Your task to perform on an android device: toggle notifications settings in the gmail app Image 0: 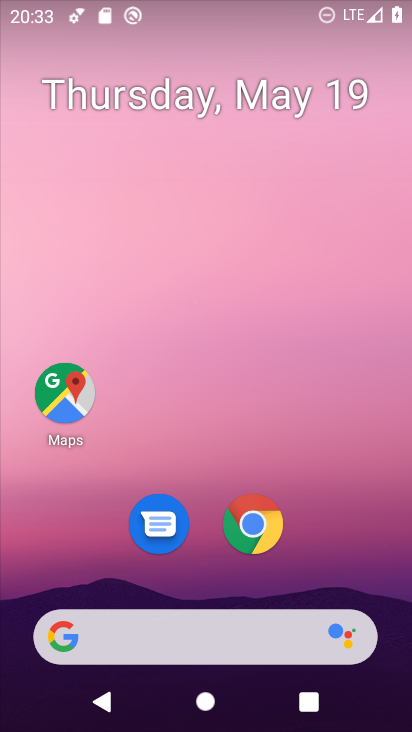
Step 0: drag from (332, 518) to (363, 75)
Your task to perform on an android device: toggle notifications settings in the gmail app Image 1: 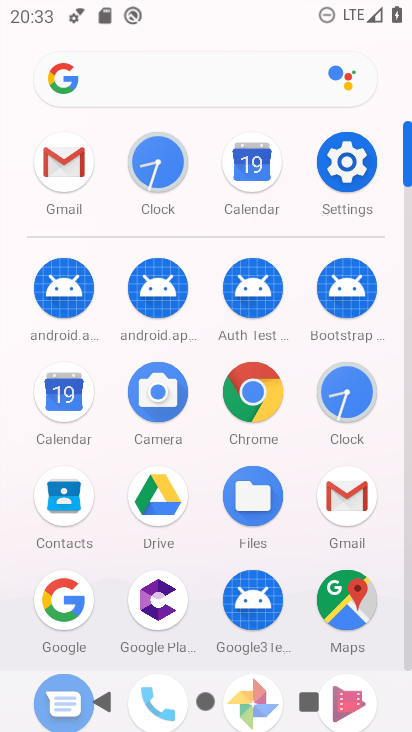
Step 1: click (338, 488)
Your task to perform on an android device: toggle notifications settings in the gmail app Image 2: 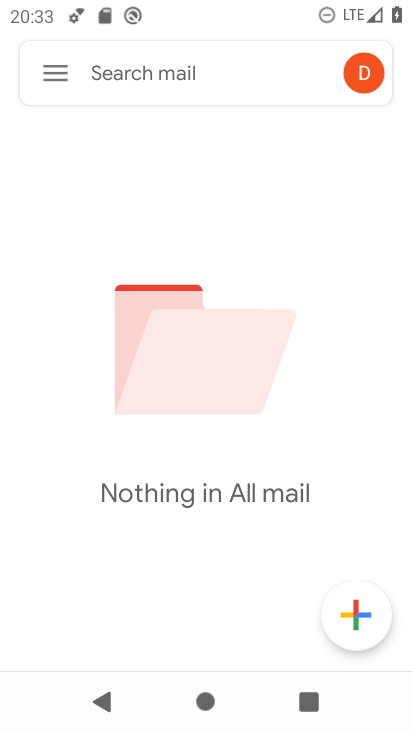
Step 2: click (53, 70)
Your task to perform on an android device: toggle notifications settings in the gmail app Image 3: 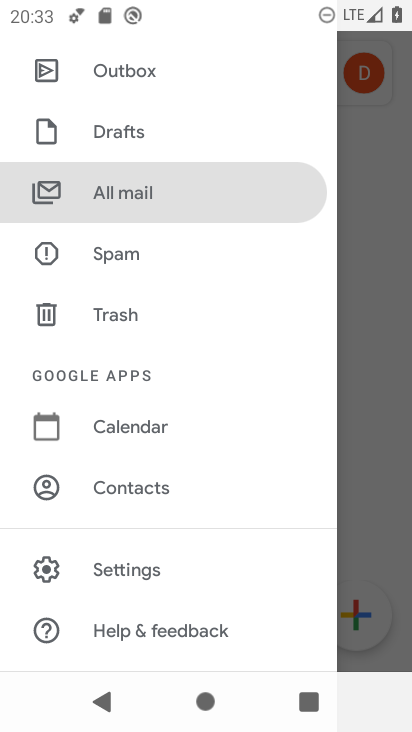
Step 3: click (126, 562)
Your task to perform on an android device: toggle notifications settings in the gmail app Image 4: 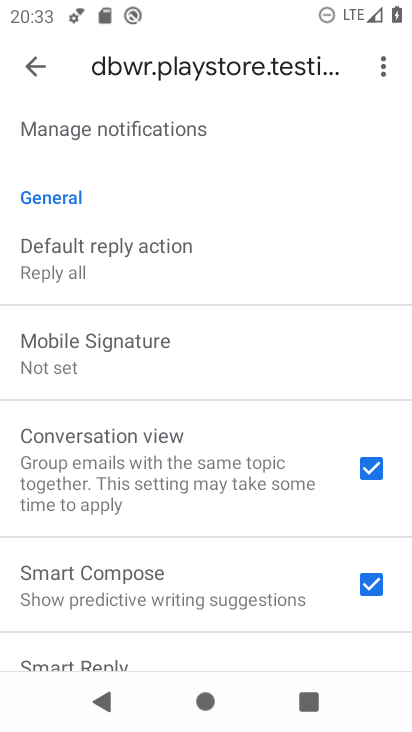
Step 4: click (205, 131)
Your task to perform on an android device: toggle notifications settings in the gmail app Image 5: 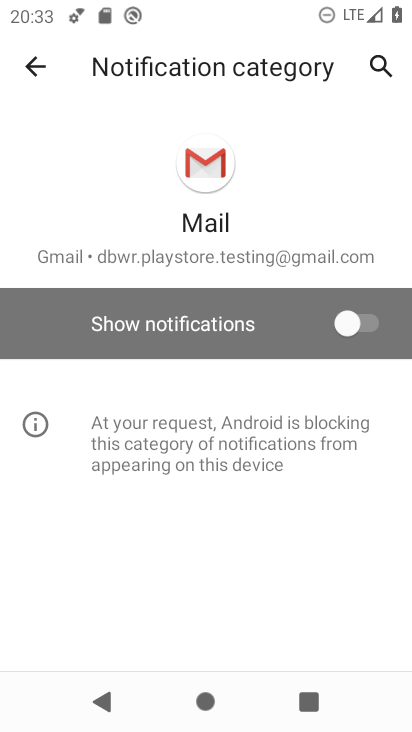
Step 5: click (359, 319)
Your task to perform on an android device: toggle notifications settings in the gmail app Image 6: 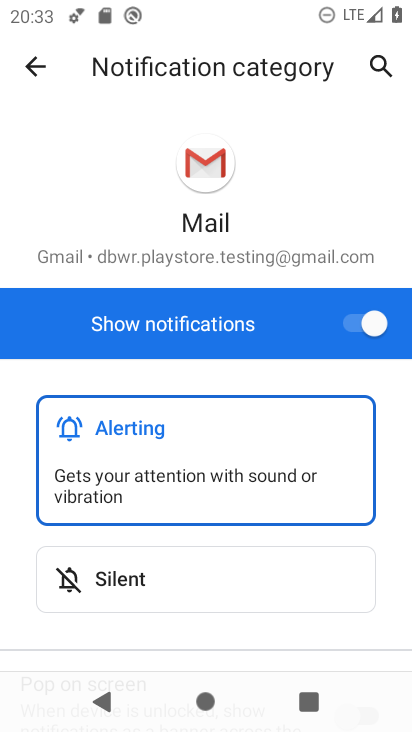
Step 6: task complete